Your task to perform on an android device: Search for hotels in London Image 0: 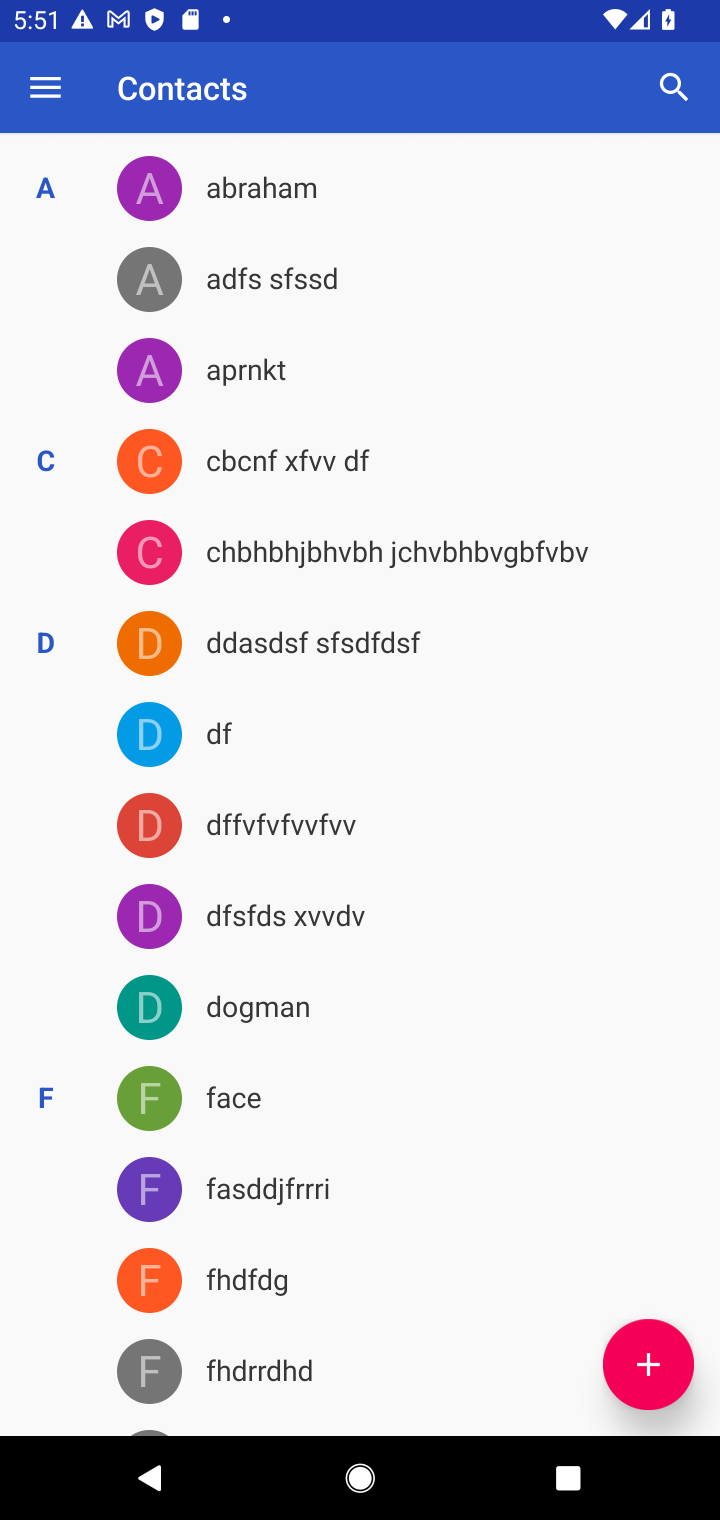
Step 0: press home button
Your task to perform on an android device: Search for hotels in London Image 1: 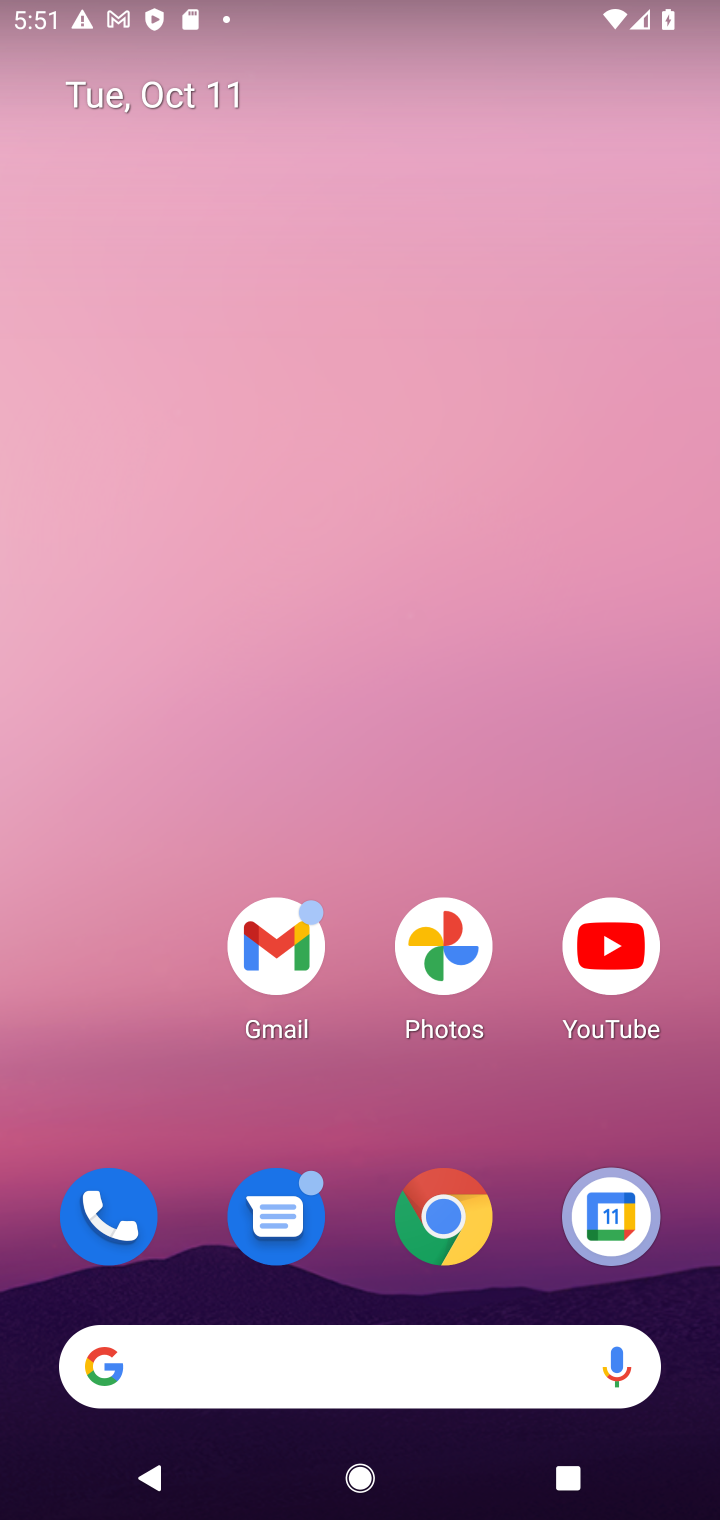
Step 1: click (445, 1217)
Your task to perform on an android device: Search for hotels in London Image 2: 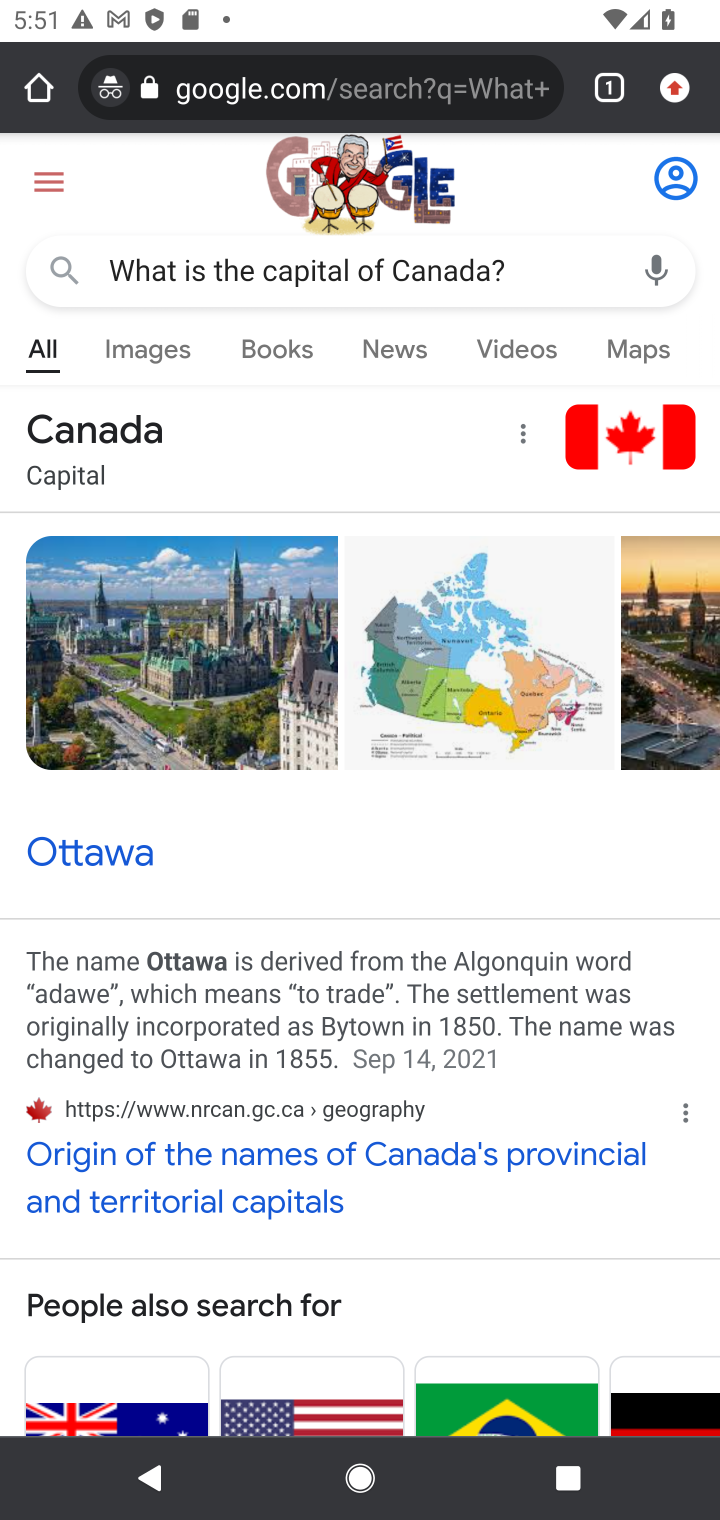
Step 2: click (337, 75)
Your task to perform on an android device: Search for hotels in London Image 3: 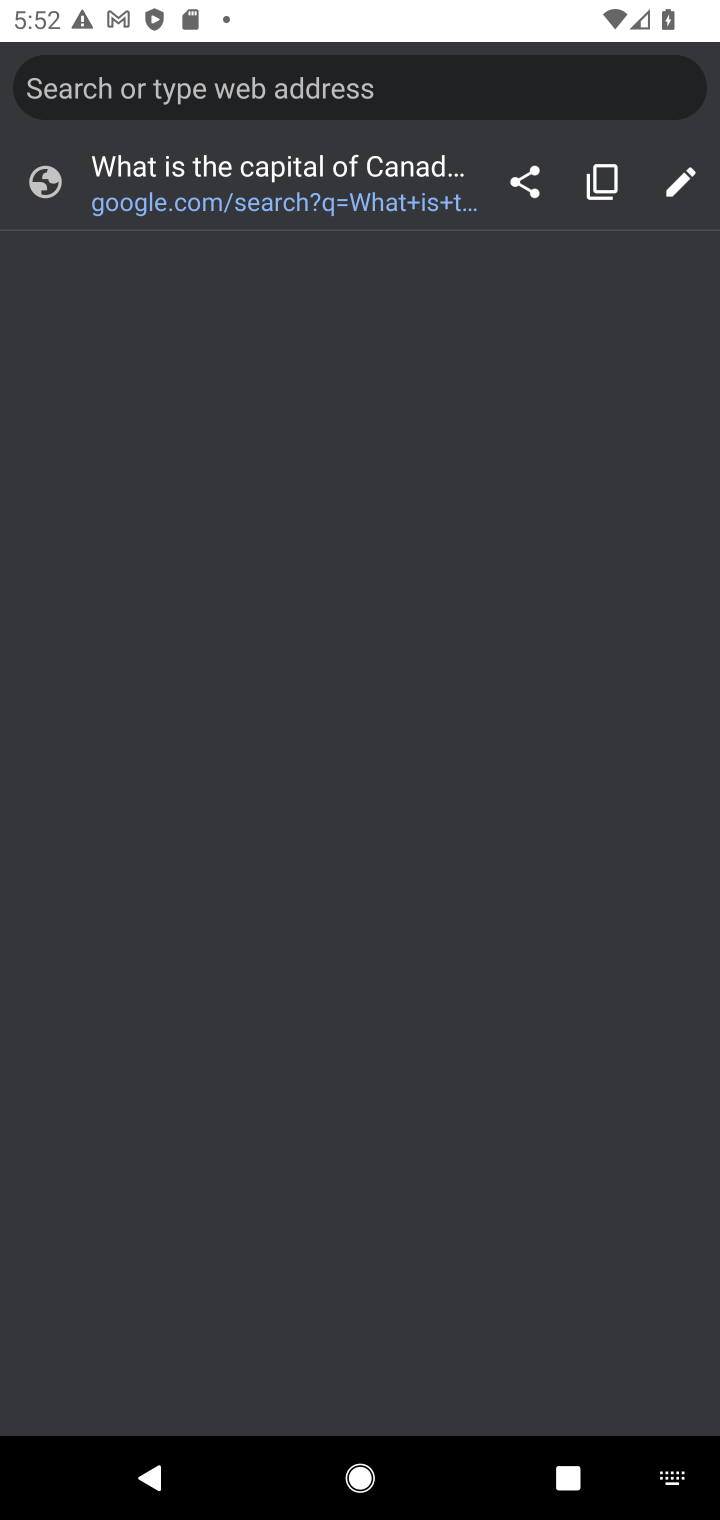
Step 3: type "hotels in London"
Your task to perform on an android device: Search for hotels in London Image 4: 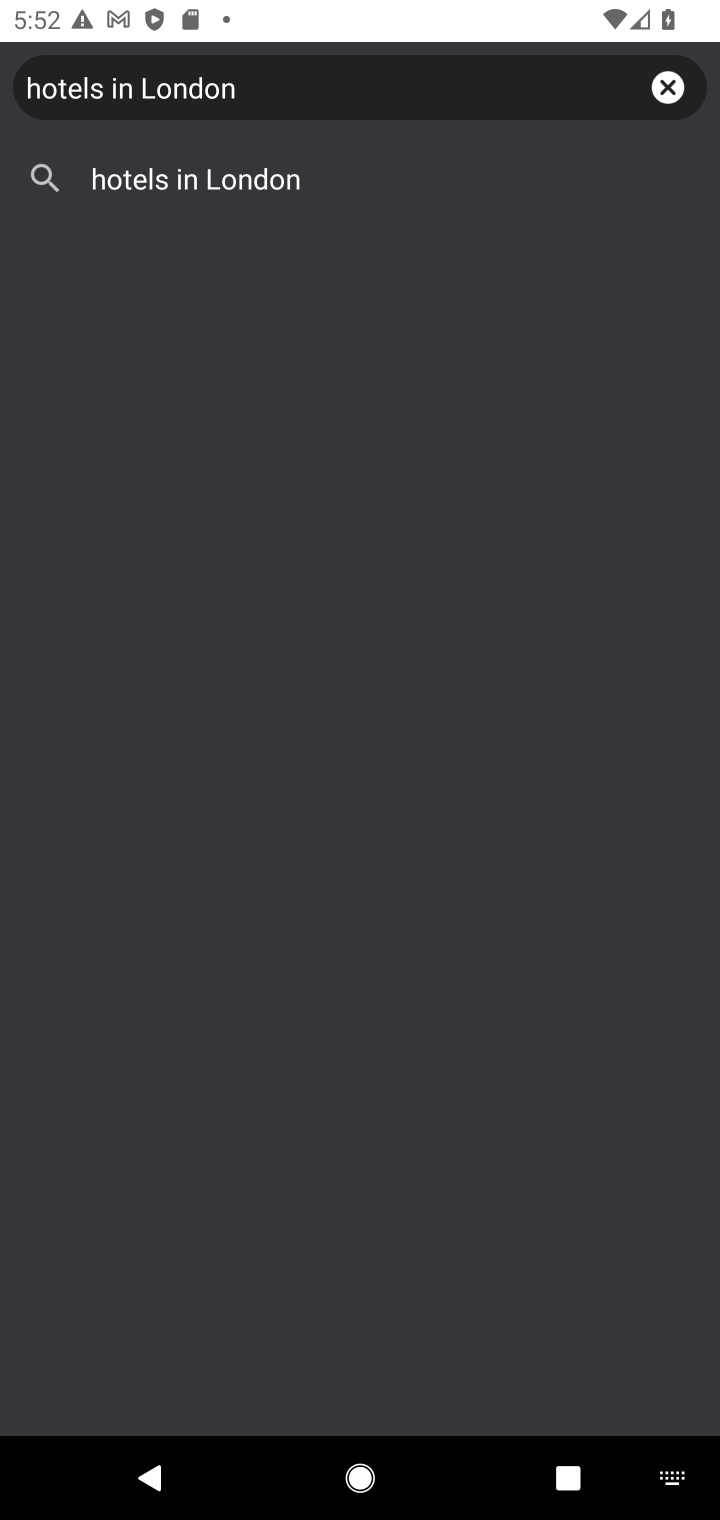
Step 4: click (271, 174)
Your task to perform on an android device: Search for hotels in London Image 5: 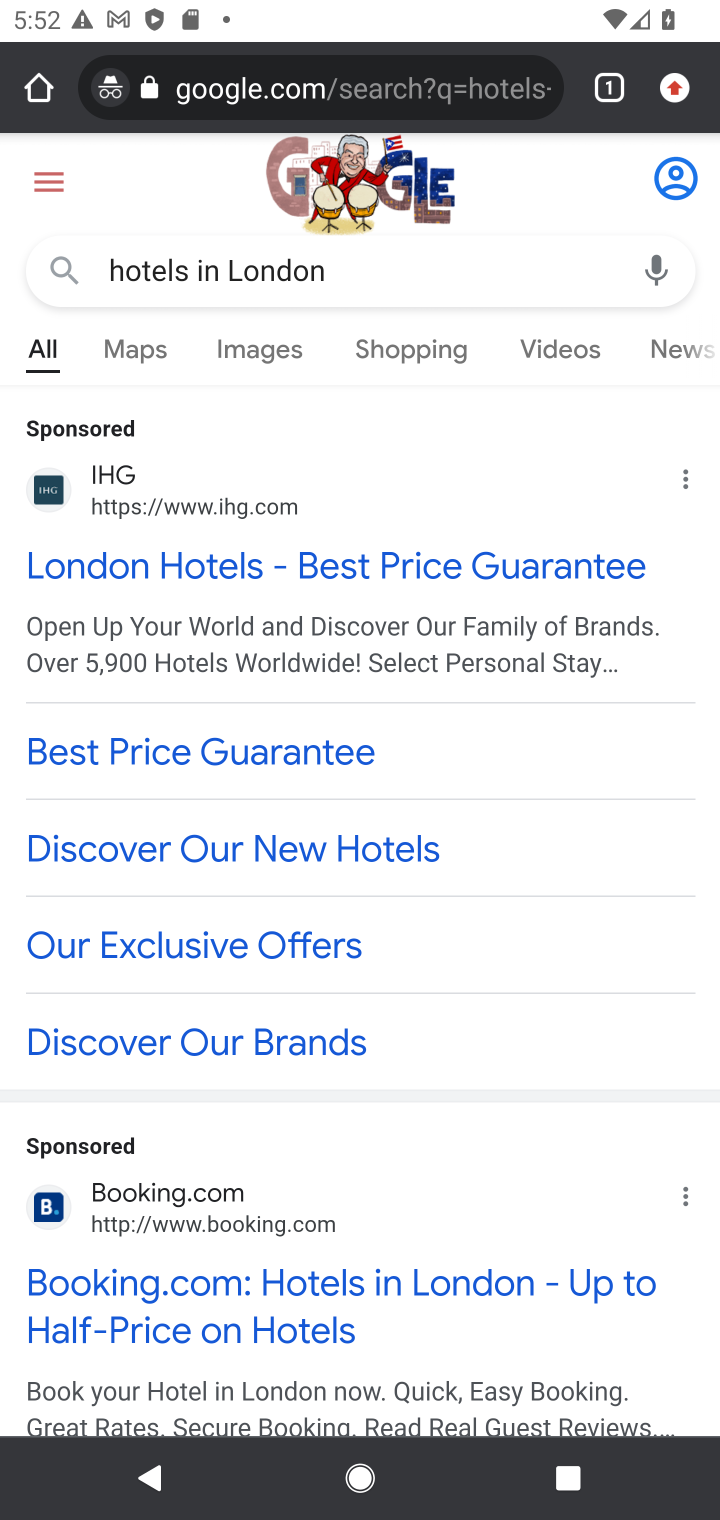
Step 5: drag from (424, 1344) to (559, 802)
Your task to perform on an android device: Search for hotels in London Image 6: 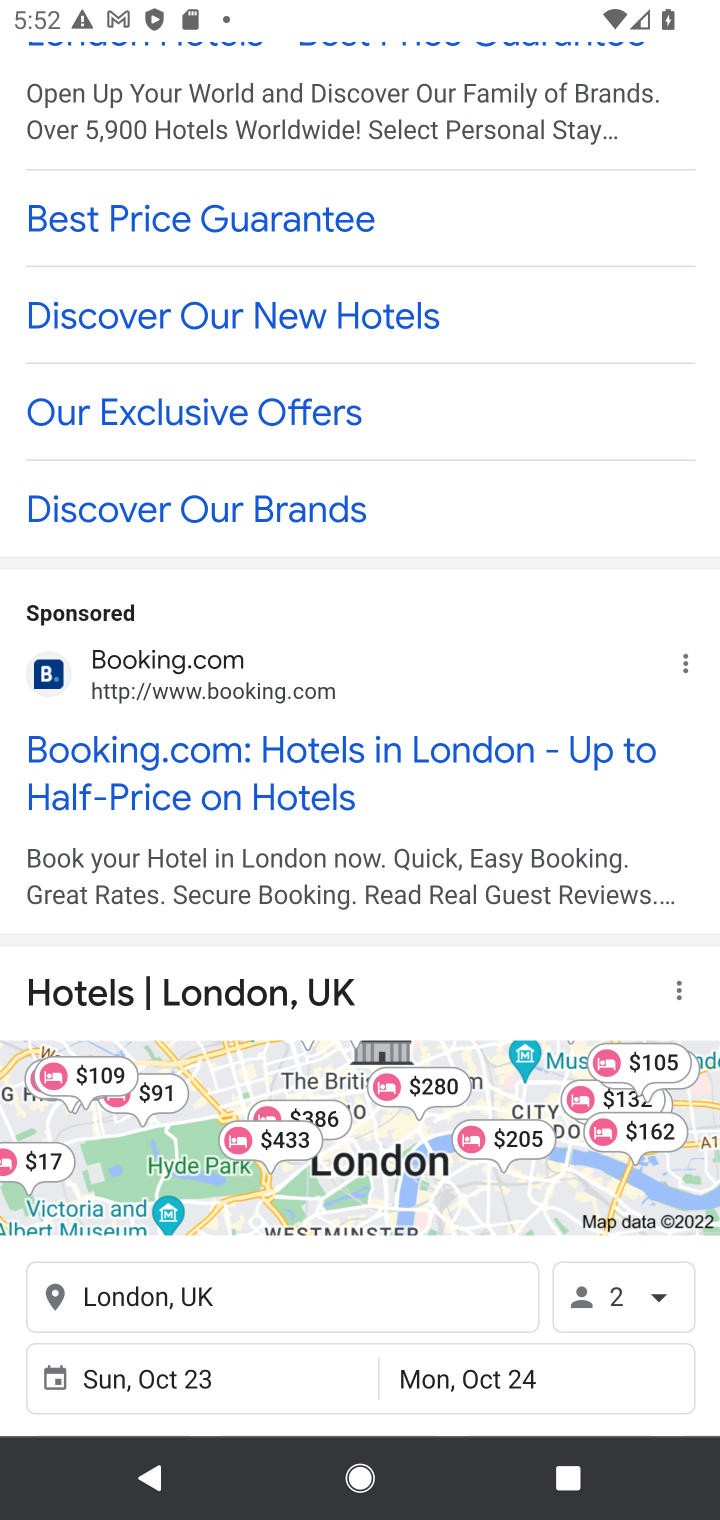
Step 6: drag from (283, 1257) to (452, 794)
Your task to perform on an android device: Search for hotels in London Image 7: 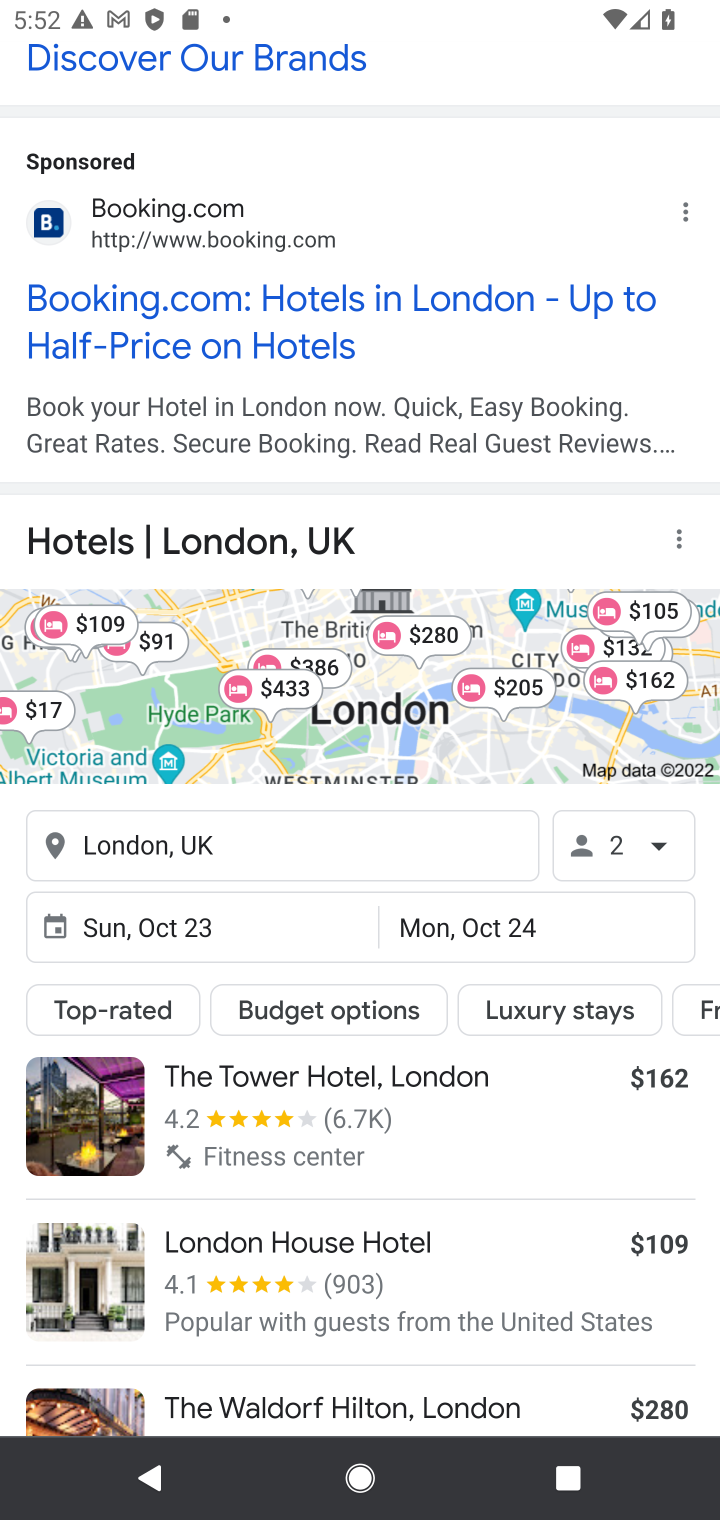
Step 7: drag from (364, 1178) to (485, 706)
Your task to perform on an android device: Search for hotels in London Image 8: 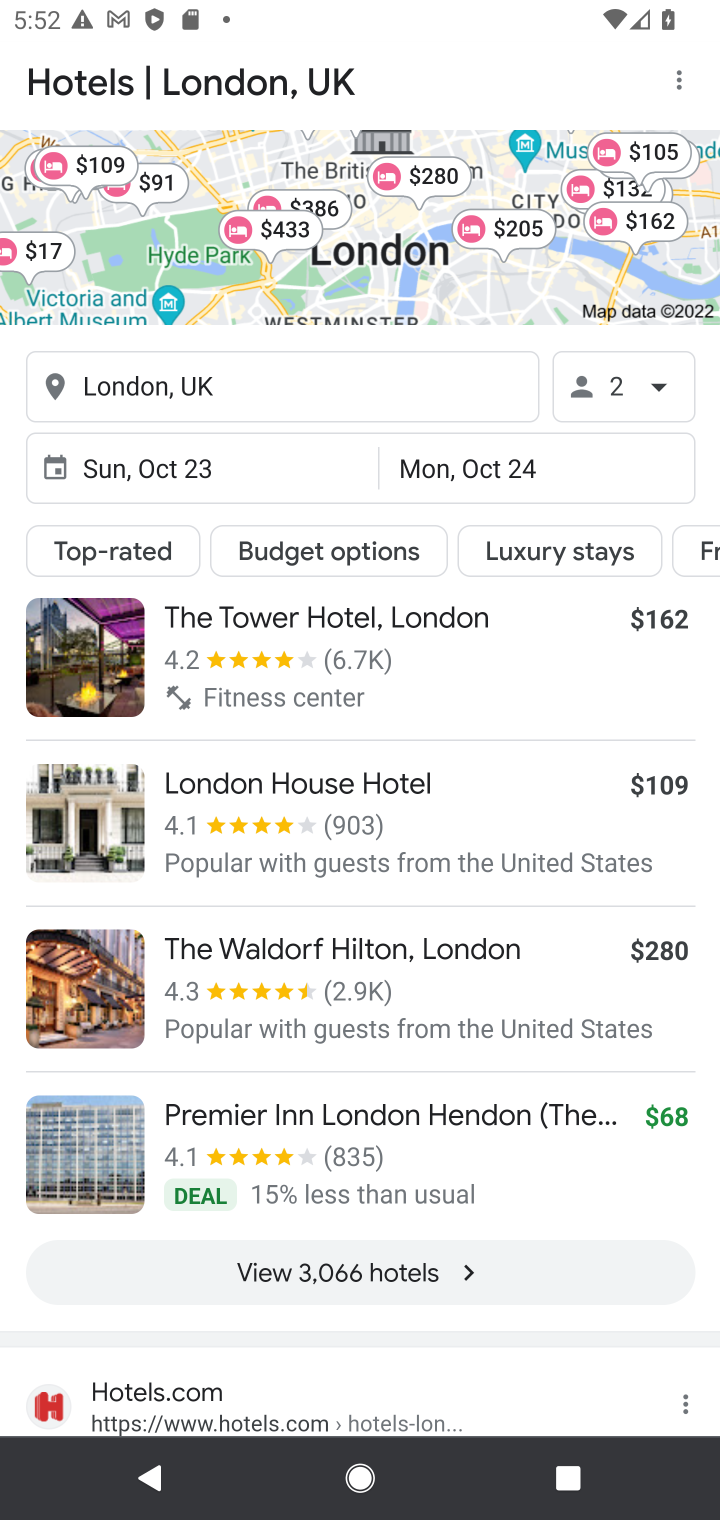
Step 8: click (334, 1276)
Your task to perform on an android device: Search for hotels in London Image 9: 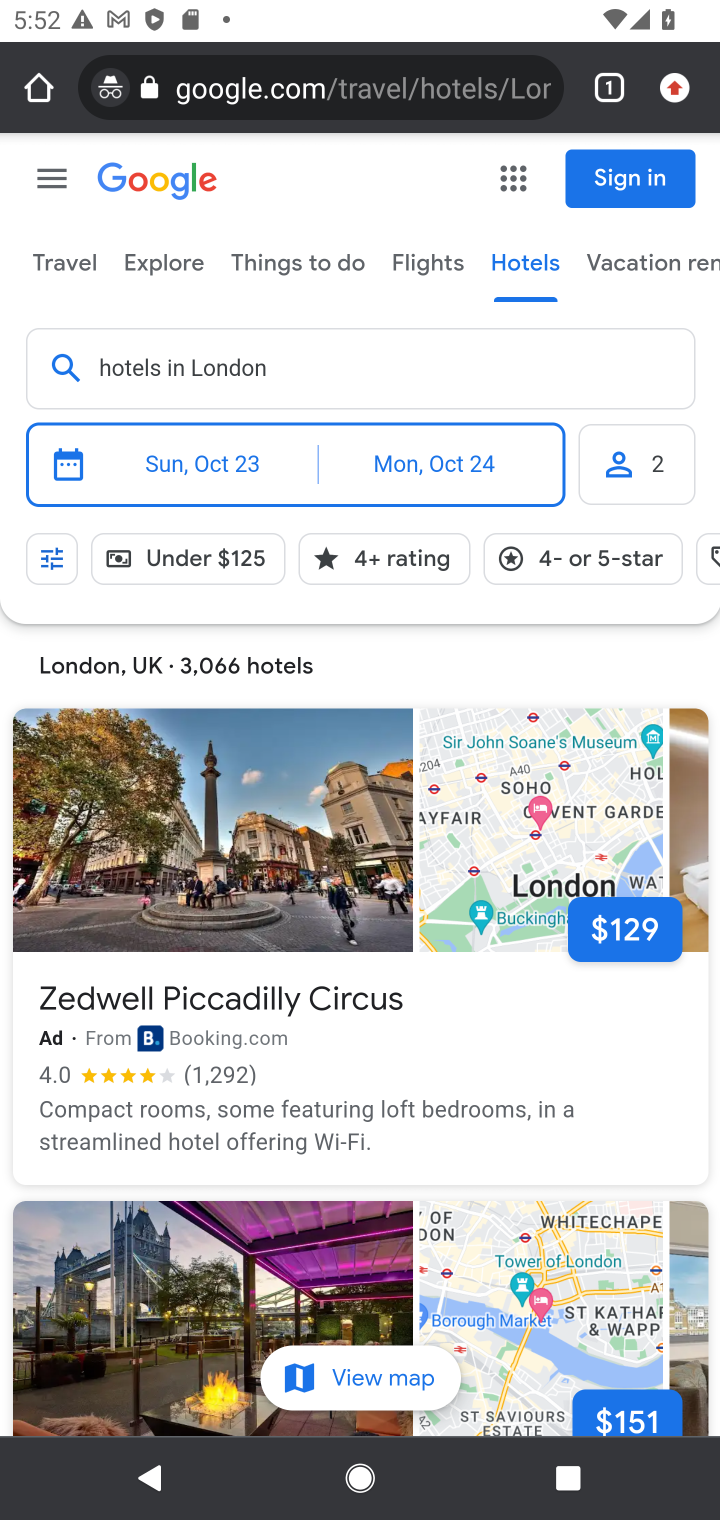
Step 9: task complete